Your task to perform on an android device: turn on javascript in the chrome app Image 0: 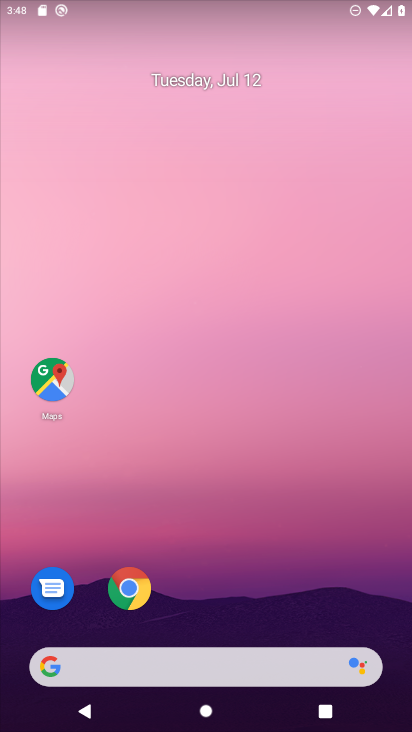
Step 0: click (137, 586)
Your task to perform on an android device: turn on javascript in the chrome app Image 1: 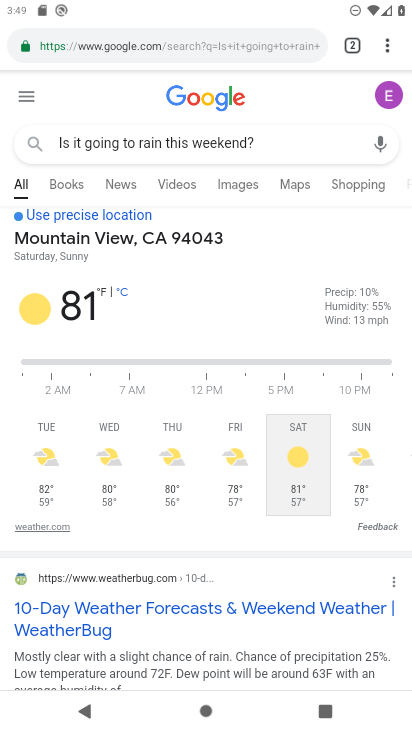
Step 1: click (388, 52)
Your task to perform on an android device: turn on javascript in the chrome app Image 2: 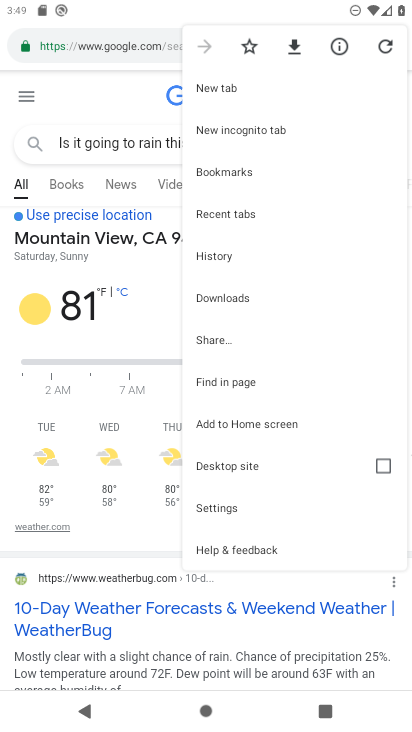
Step 2: click (251, 508)
Your task to perform on an android device: turn on javascript in the chrome app Image 3: 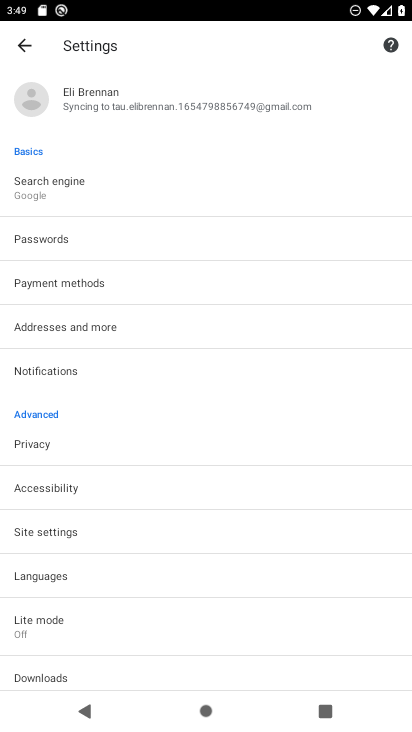
Step 3: click (149, 537)
Your task to perform on an android device: turn on javascript in the chrome app Image 4: 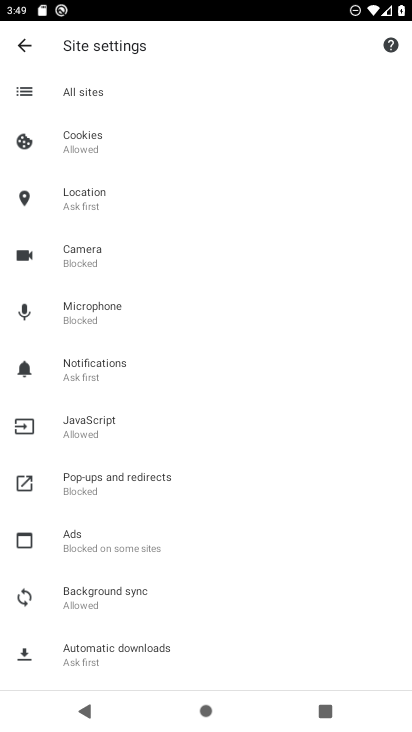
Step 4: click (136, 428)
Your task to perform on an android device: turn on javascript in the chrome app Image 5: 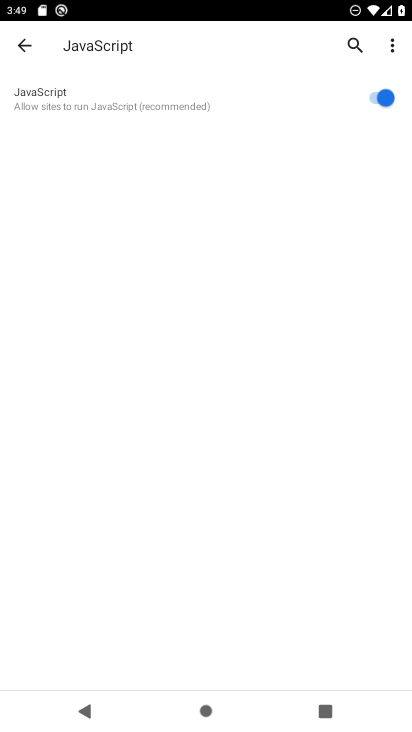
Step 5: task complete